Your task to perform on an android device: turn on translation in the chrome app Image 0: 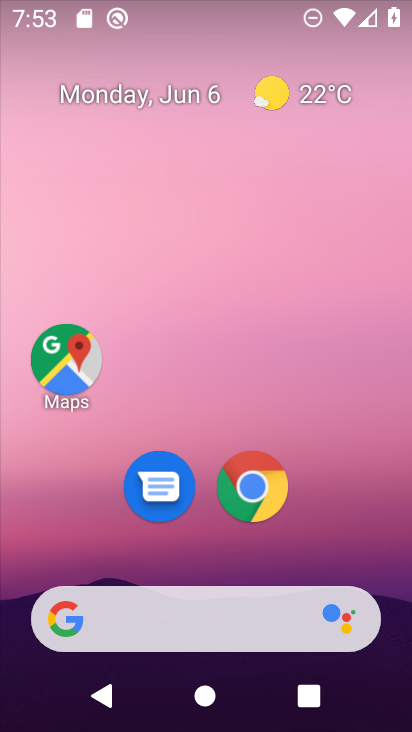
Step 0: drag from (400, 632) to (284, 69)
Your task to perform on an android device: turn on translation in the chrome app Image 1: 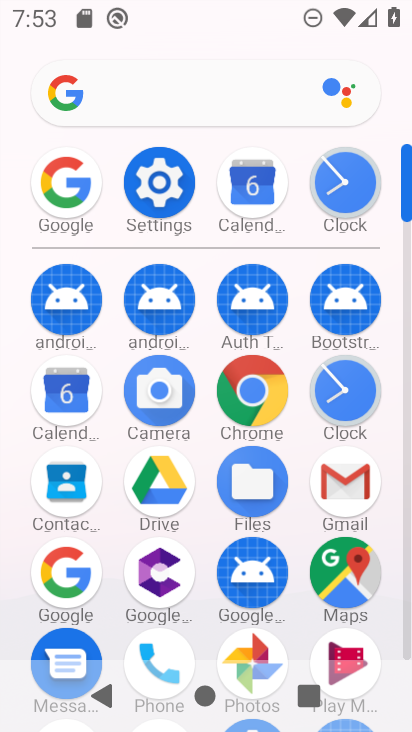
Step 1: click (247, 414)
Your task to perform on an android device: turn on translation in the chrome app Image 2: 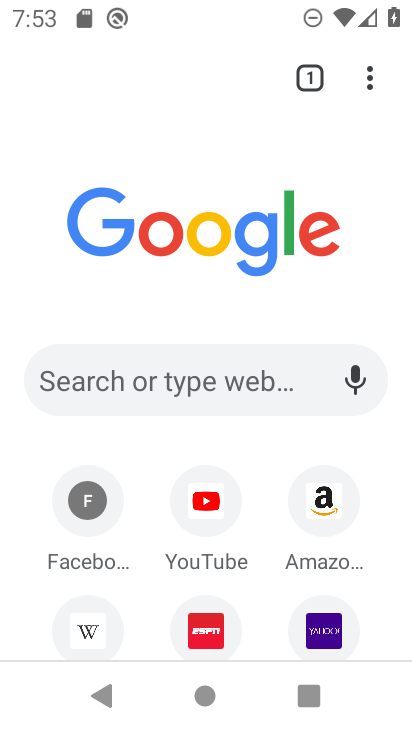
Step 2: click (368, 69)
Your task to perform on an android device: turn on translation in the chrome app Image 3: 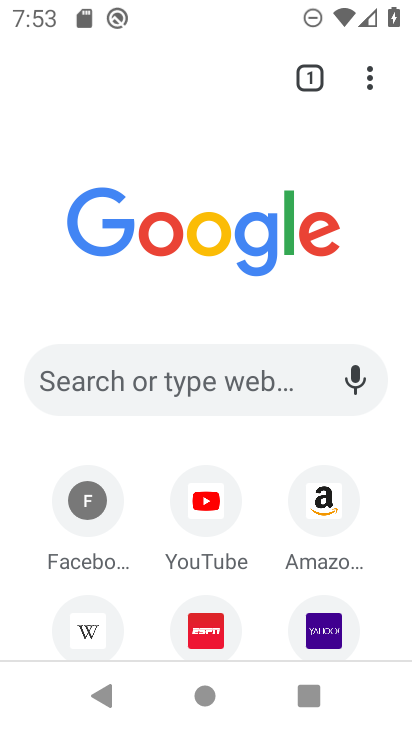
Step 3: click (370, 69)
Your task to perform on an android device: turn on translation in the chrome app Image 4: 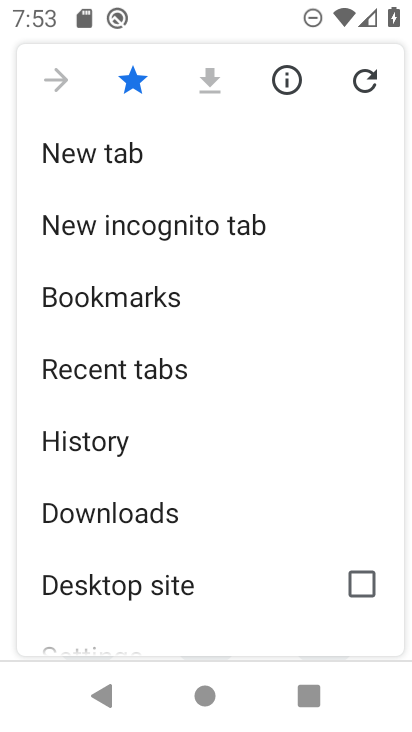
Step 4: drag from (153, 580) to (231, 157)
Your task to perform on an android device: turn on translation in the chrome app Image 5: 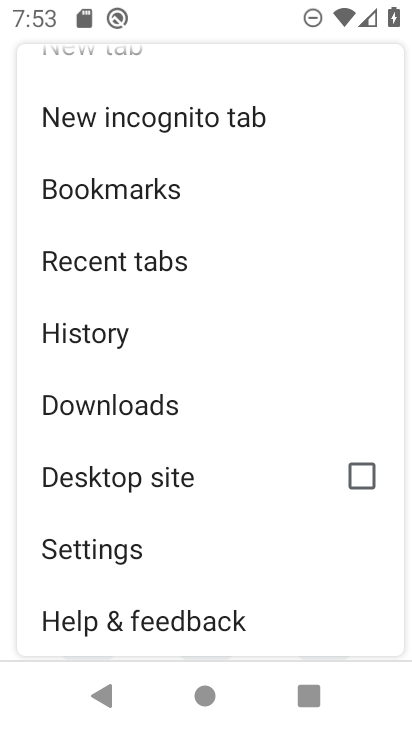
Step 5: click (118, 557)
Your task to perform on an android device: turn on translation in the chrome app Image 6: 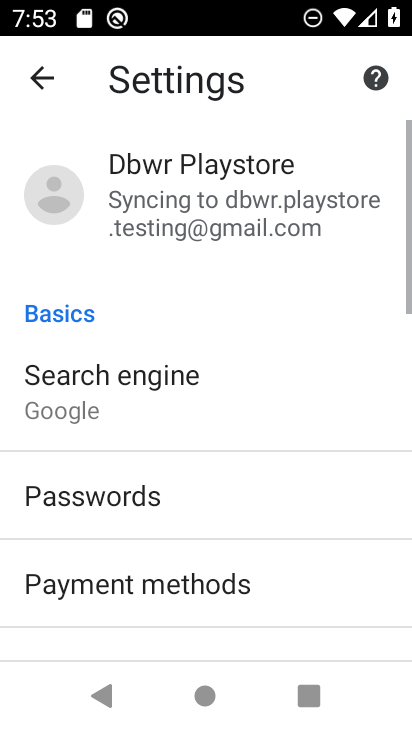
Step 6: drag from (118, 557) to (171, 130)
Your task to perform on an android device: turn on translation in the chrome app Image 7: 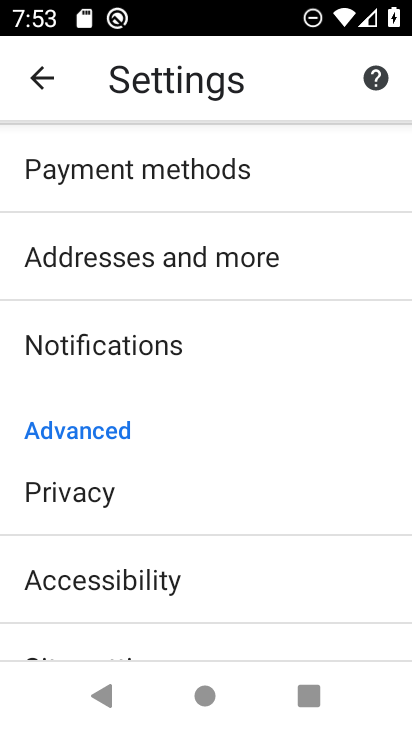
Step 7: drag from (155, 600) to (211, 146)
Your task to perform on an android device: turn on translation in the chrome app Image 8: 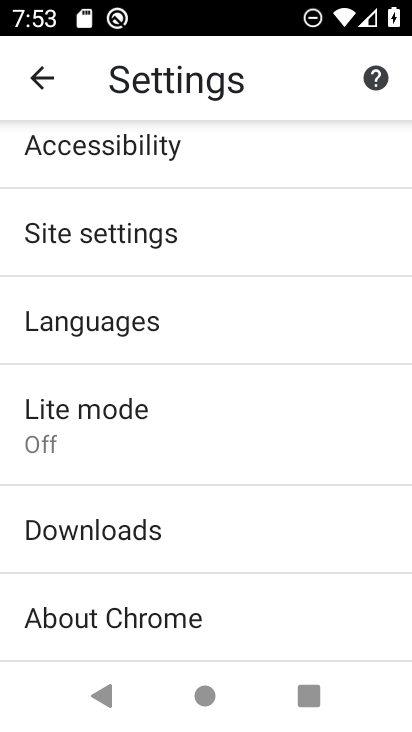
Step 8: click (164, 321)
Your task to perform on an android device: turn on translation in the chrome app Image 9: 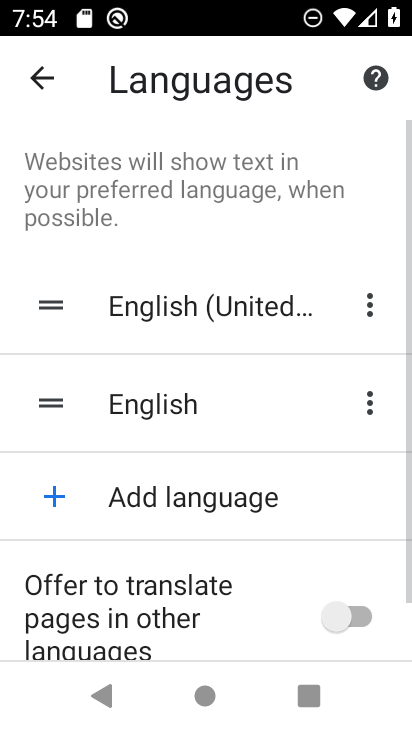
Step 9: click (316, 622)
Your task to perform on an android device: turn on translation in the chrome app Image 10: 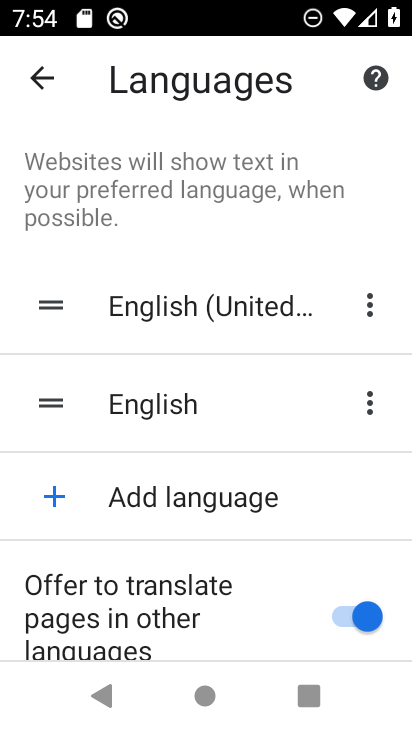
Step 10: task complete